Your task to perform on an android device: Go to sound settings Image 0: 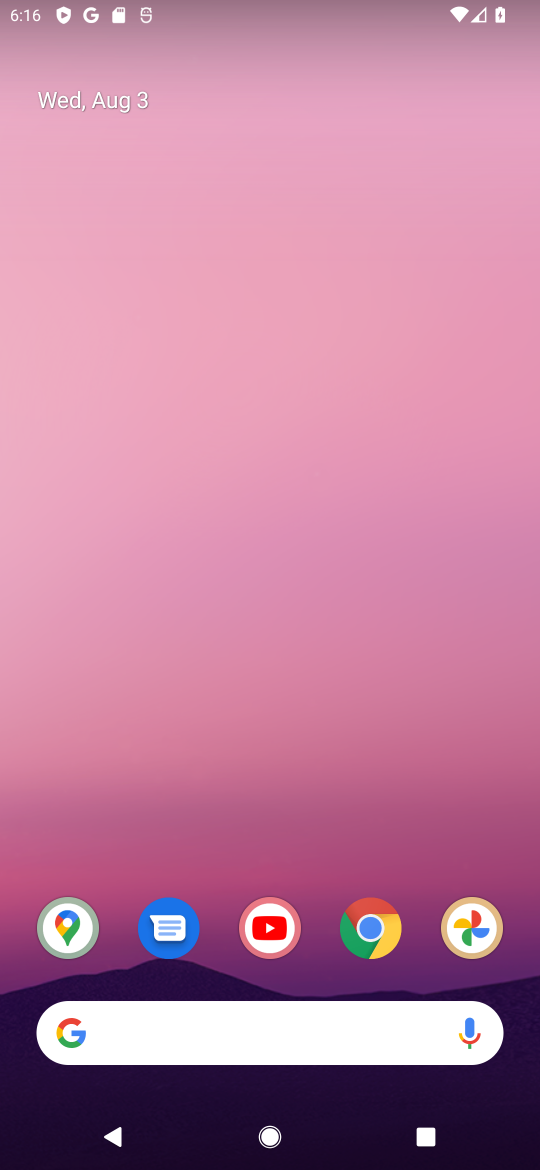
Step 0: drag from (319, 757) to (332, 165)
Your task to perform on an android device: Go to sound settings Image 1: 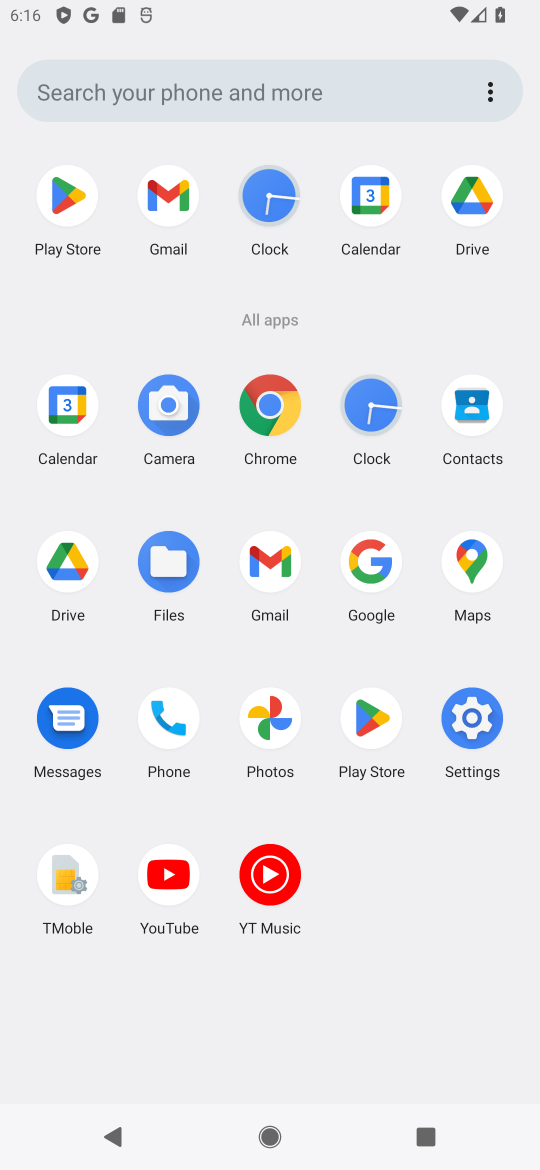
Step 1: click (473, 712)
Your task to perform on an android device: Go to sound settings Image 2: 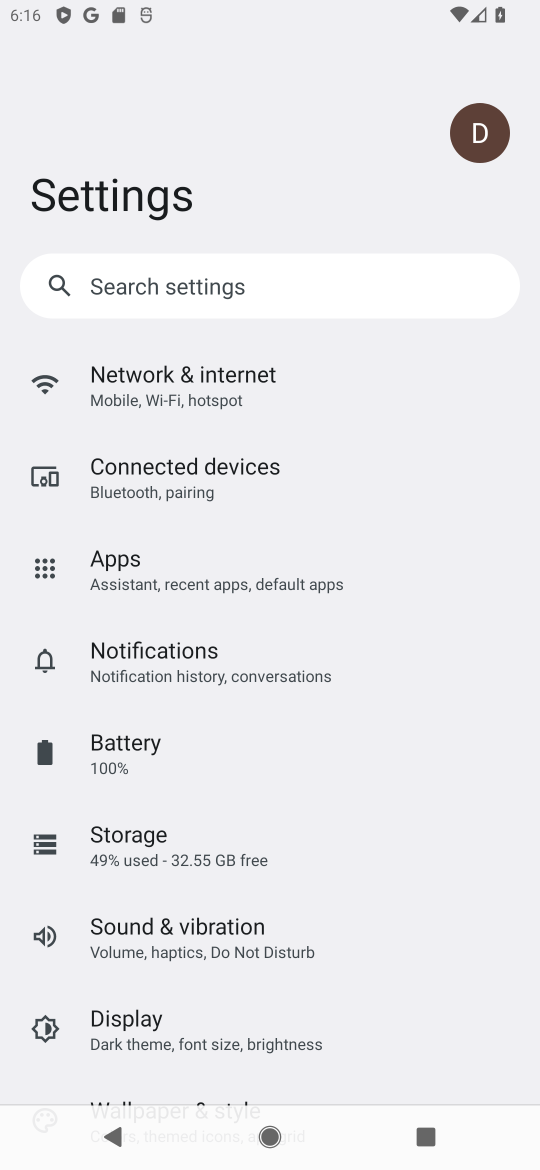
Step 2: drag from (441, 909) to (448, 635)
Your task to perform on an android device: Go to sound settings Image 3: 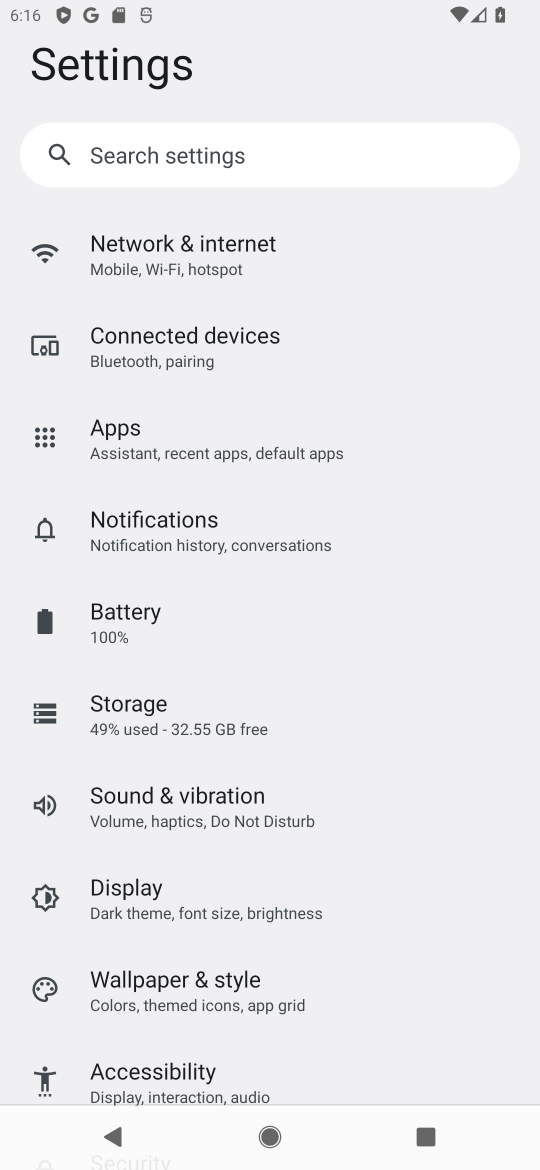
Step 3: drag from (421, 908) to (440, 648)
Your task to perform on an android device: Go to sound settings Image 4: 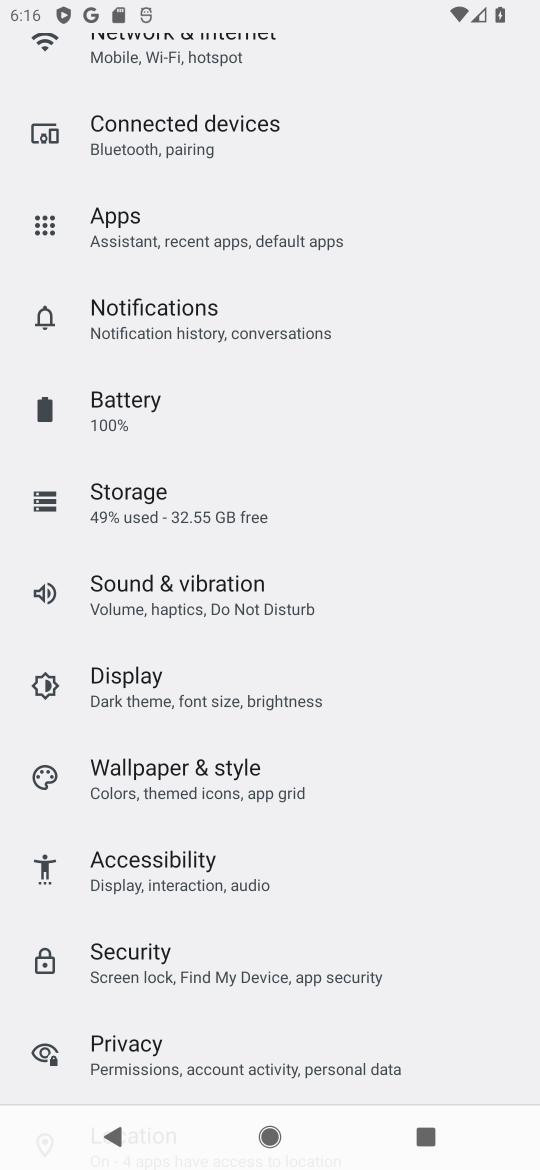
Step 4: drag from (440, 922) to (445, 621)
Your task to perform on an android device: Go to sound settings Image 5: 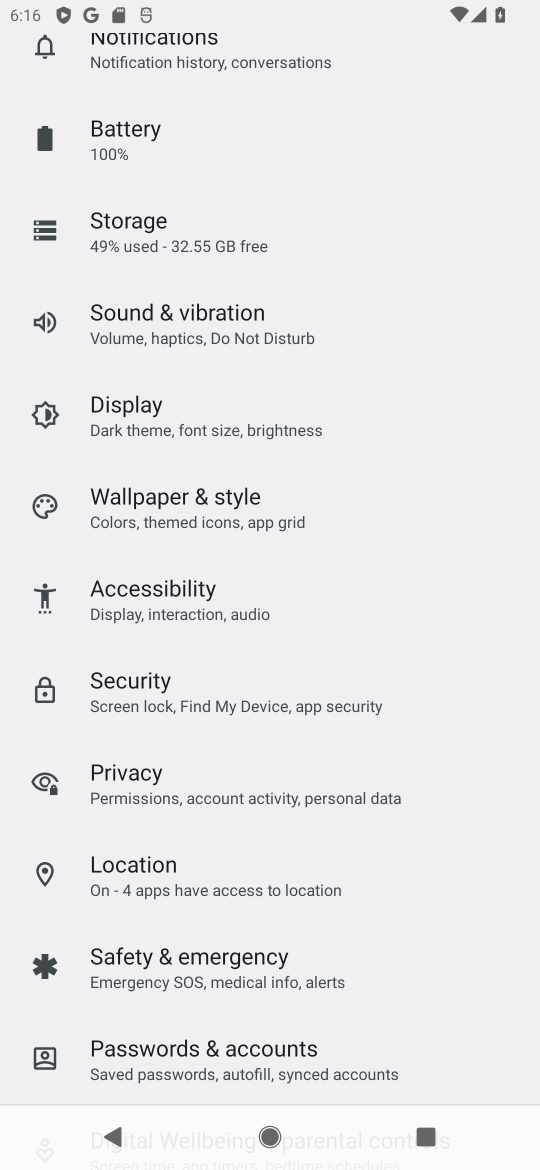
Step 5: drag from (449, 371) to (463, 639)
Your task to perform on an android device: Go to sound settings Image 6: 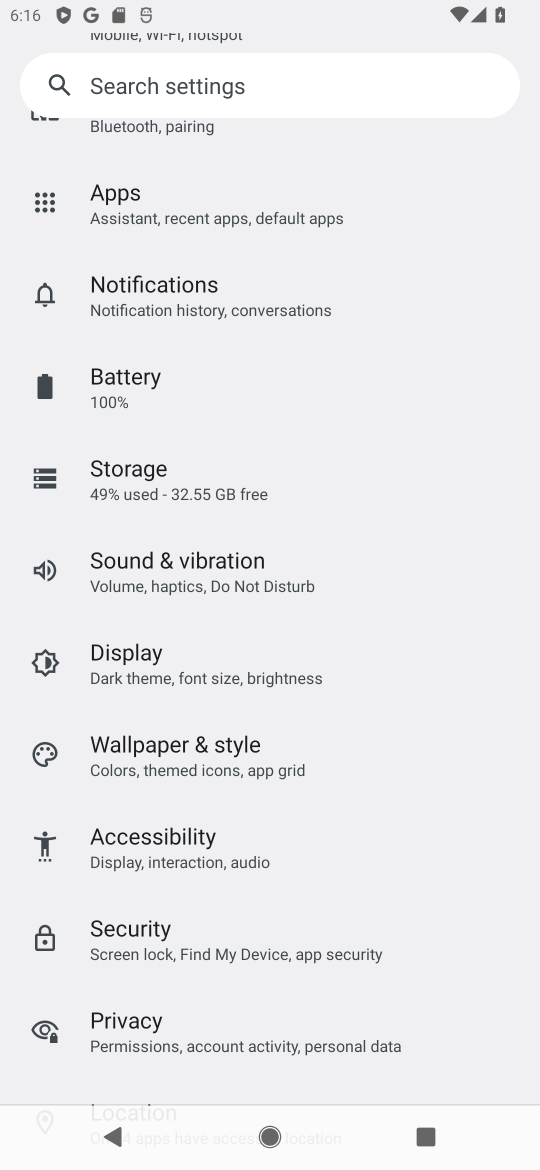
Step 6: click (373, 575)
Your task to perform on an android device: Go to sound settings Image 7: 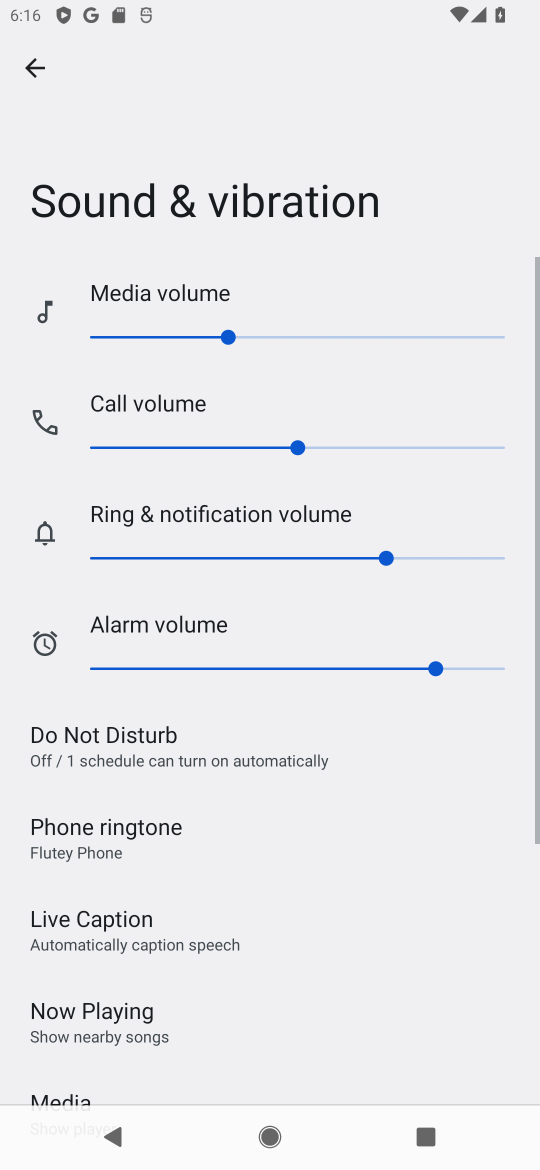
Step 7: task complete